Your task to perform on an android device: open chrome and create a bookmark for the current page Image 0: 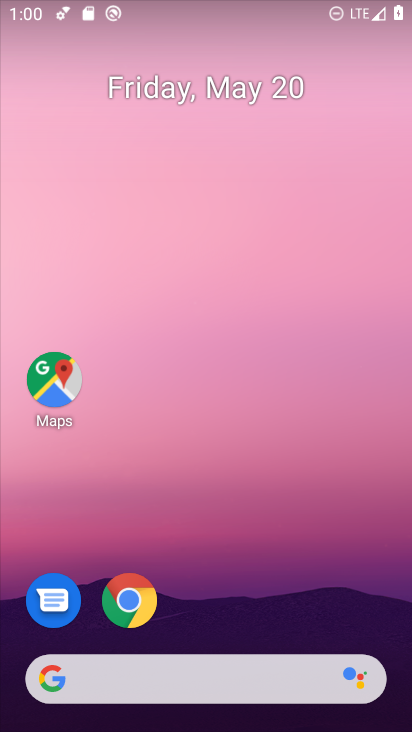
Step 0: click (153, 609)
Your task to perform on an android device: open chrome and create a bookmark for the current page Image 1: 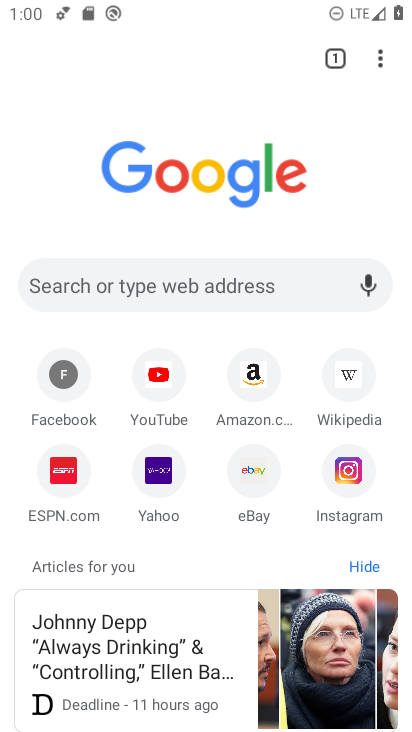
Step 1: task complete